Your task to perform on an android device: show emergency info Image 0: 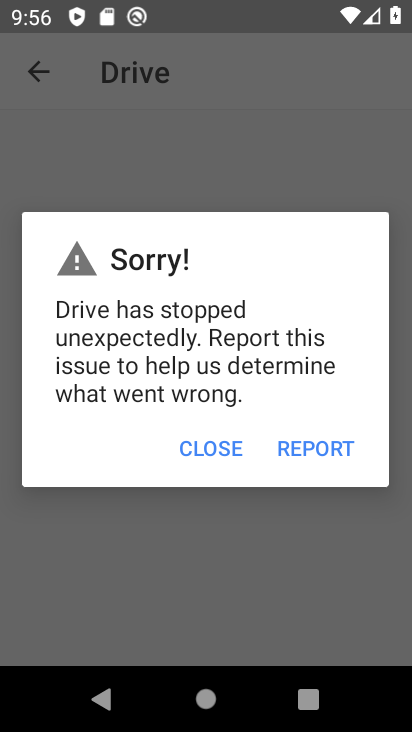
Step 0: press home button
Your task to perform on an android device: show emergency info Image 1: 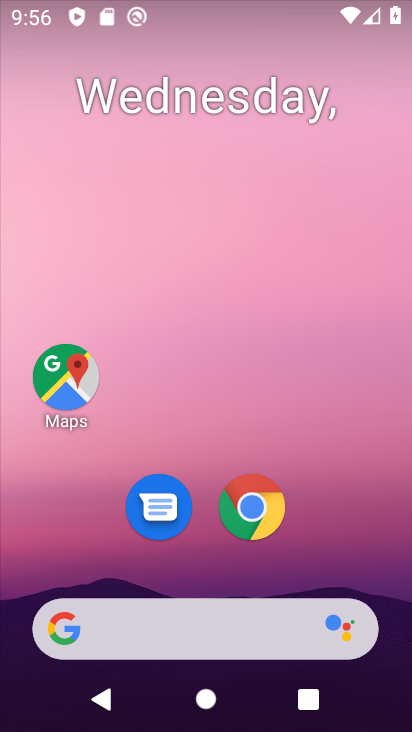
Step 1: drag from (235, 640) to (255, 233)
Your task to perform on an android device: show emergency info Image 2: 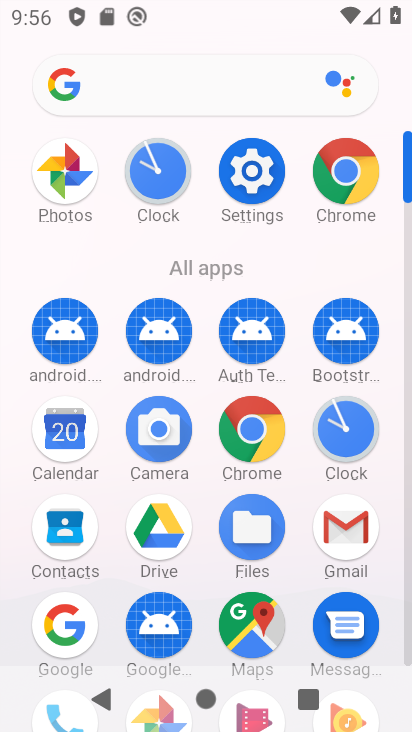
Step 2: click (245, 185)
Your task to perform on an android device: show emergency info Image 3: 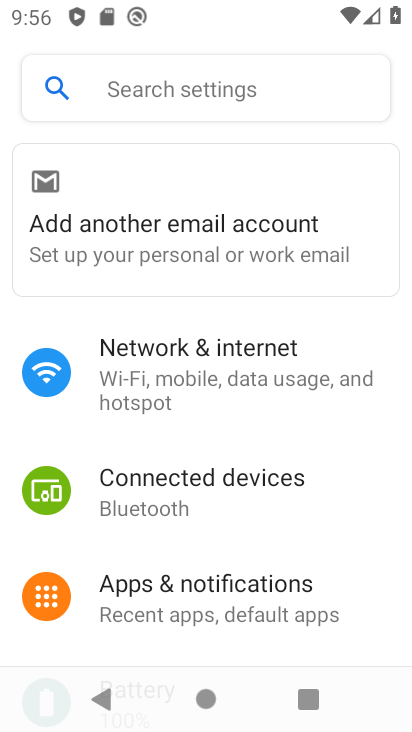
Step 3: click (182, 92)
Your task to perform on an android device: show emergency info Image 4: 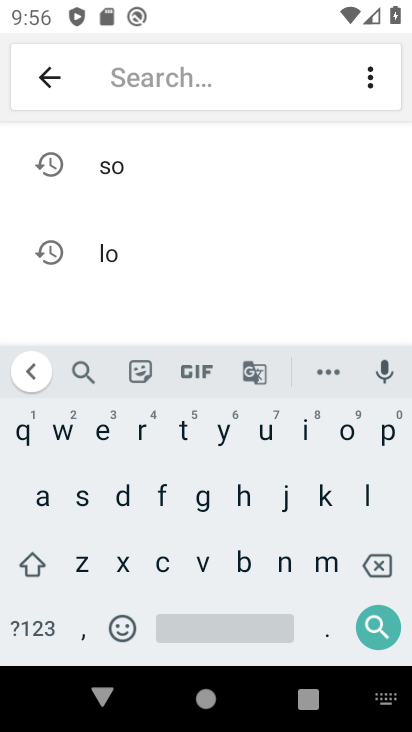
Step 4: click (100, 437)
Your task to perform on an android device: show emergency info Image 5: 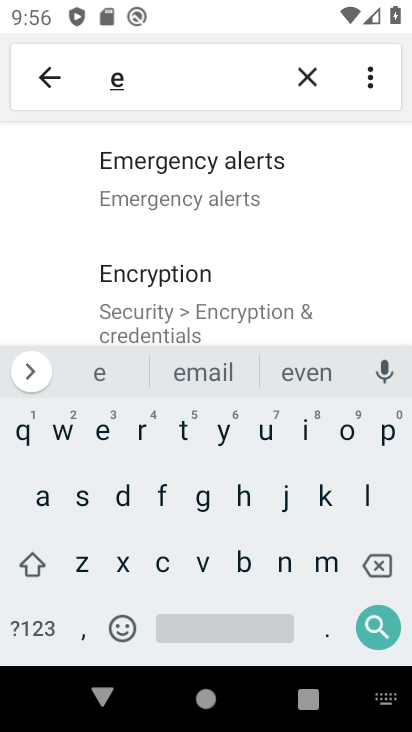
Step 5: click (329, 557)
Your task to perform on an android device: show emergency info Image 6: 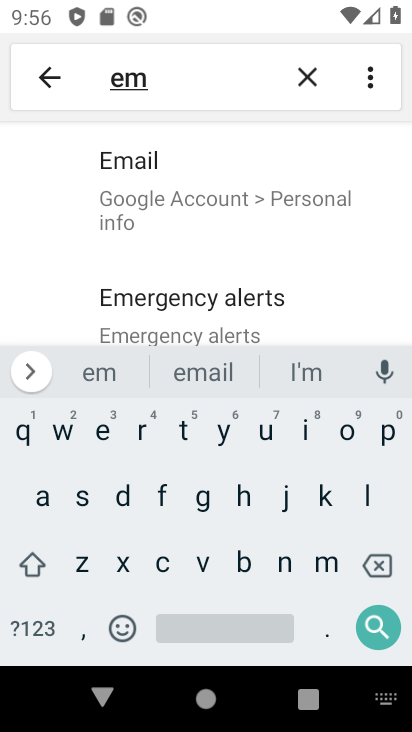
Step 6: click (100, 439)
Your task to perform on an android device: show emergency info Image 7: 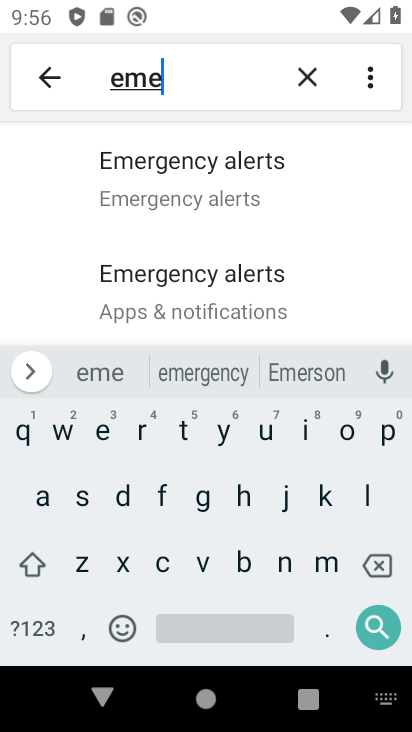
Step 7: click (173, 376)
Your task to perform on an android device: show emergency info Image 8: 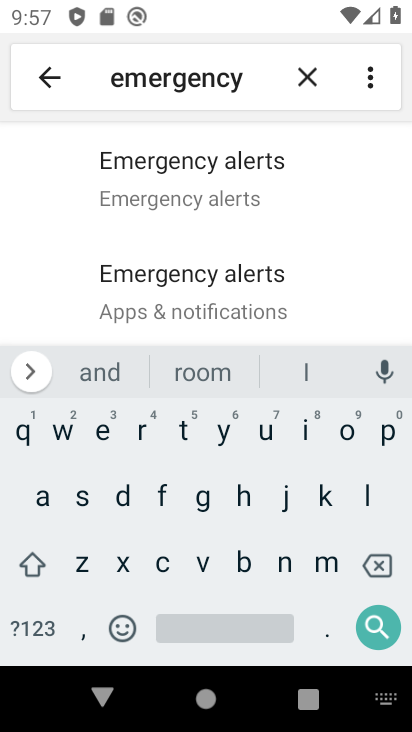
Step 8: click (308, 444)
Your task to perform on an android device: show emergency info Image 9: 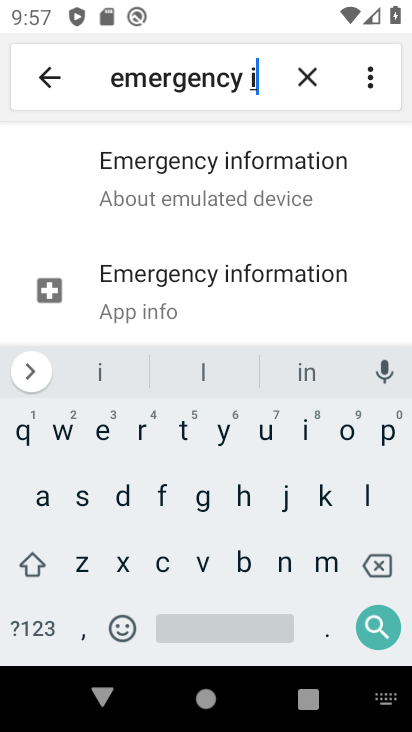
Step 9: click (282, 559)
Your task to perform on an android device: show emergency info Image 10: 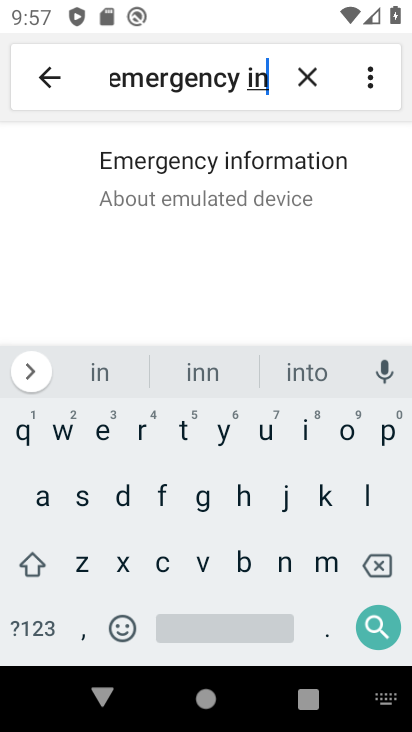
Step 10: click (210, 180)
Your task to perform on an android device: show emergency info Image 11: 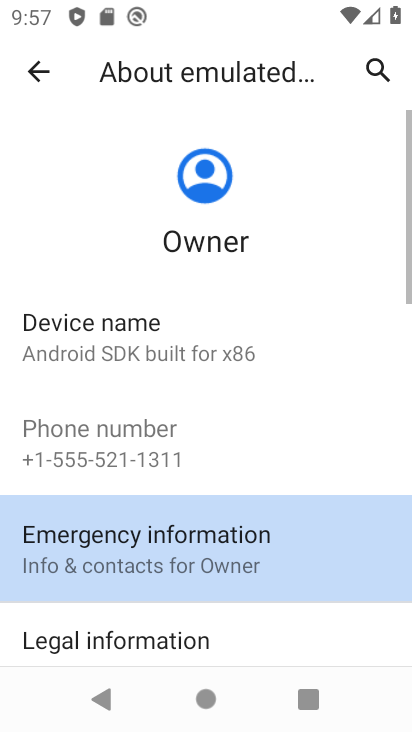
Step 11: click (111, 539)
Your task to perform on an android device: show emergency info Image 12: 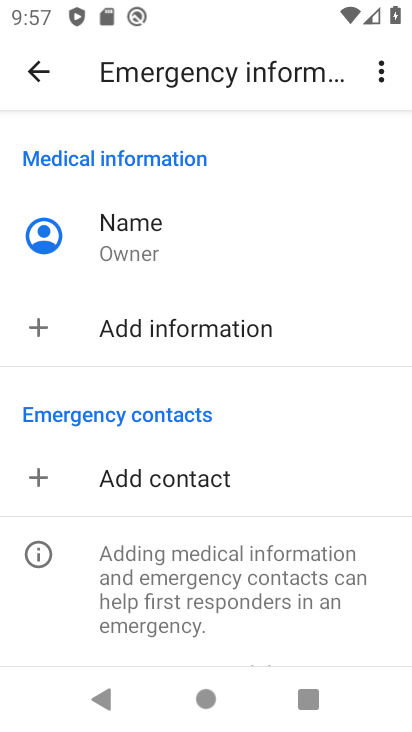
Step 12: task complete